Your task to perform on an android device: empty trash in the gmail app Image 0: 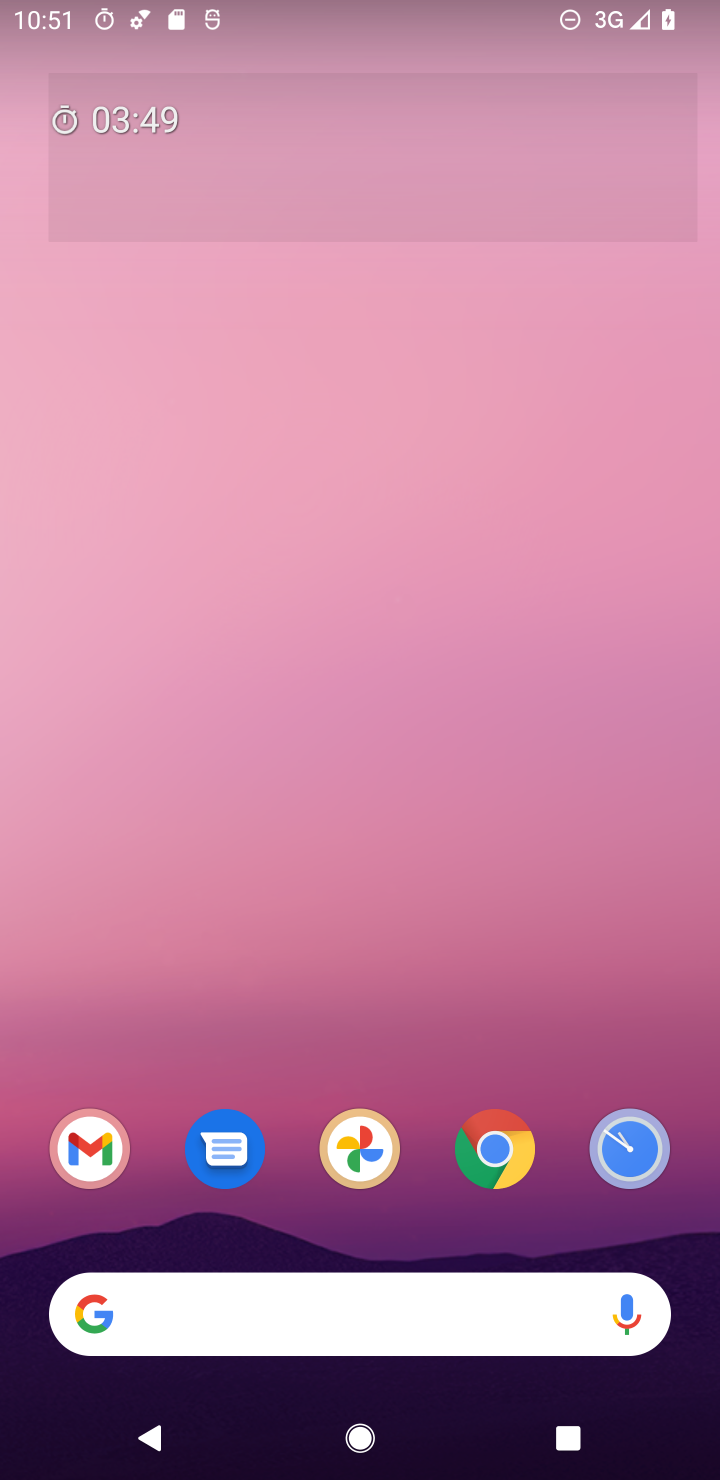
Step 0: drag from (435, 978) to (505, 187)
Your task to perform on an android device: empty trash in the gmail app Image 1: 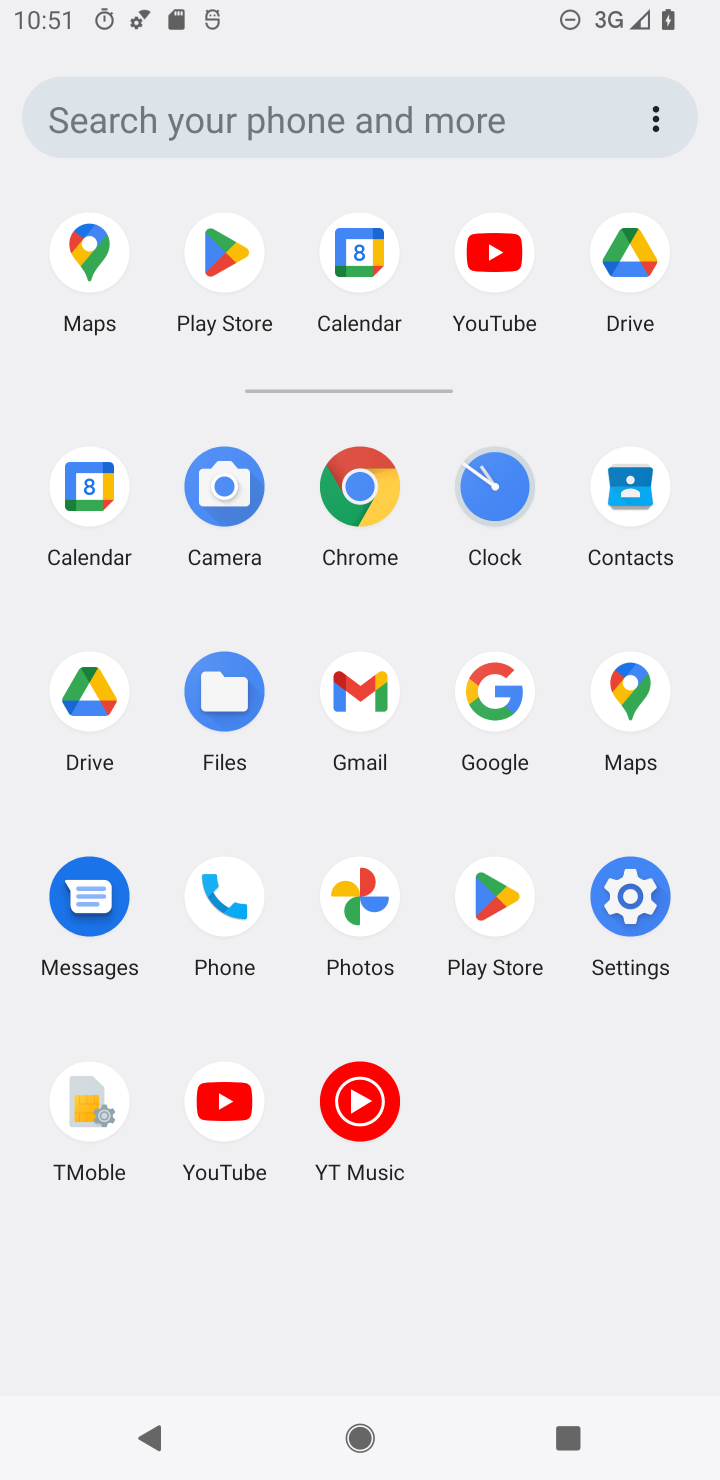
Step 1: click (362, 693)
Your task to perform on an android device: empty trash in the gmail app Image 2: 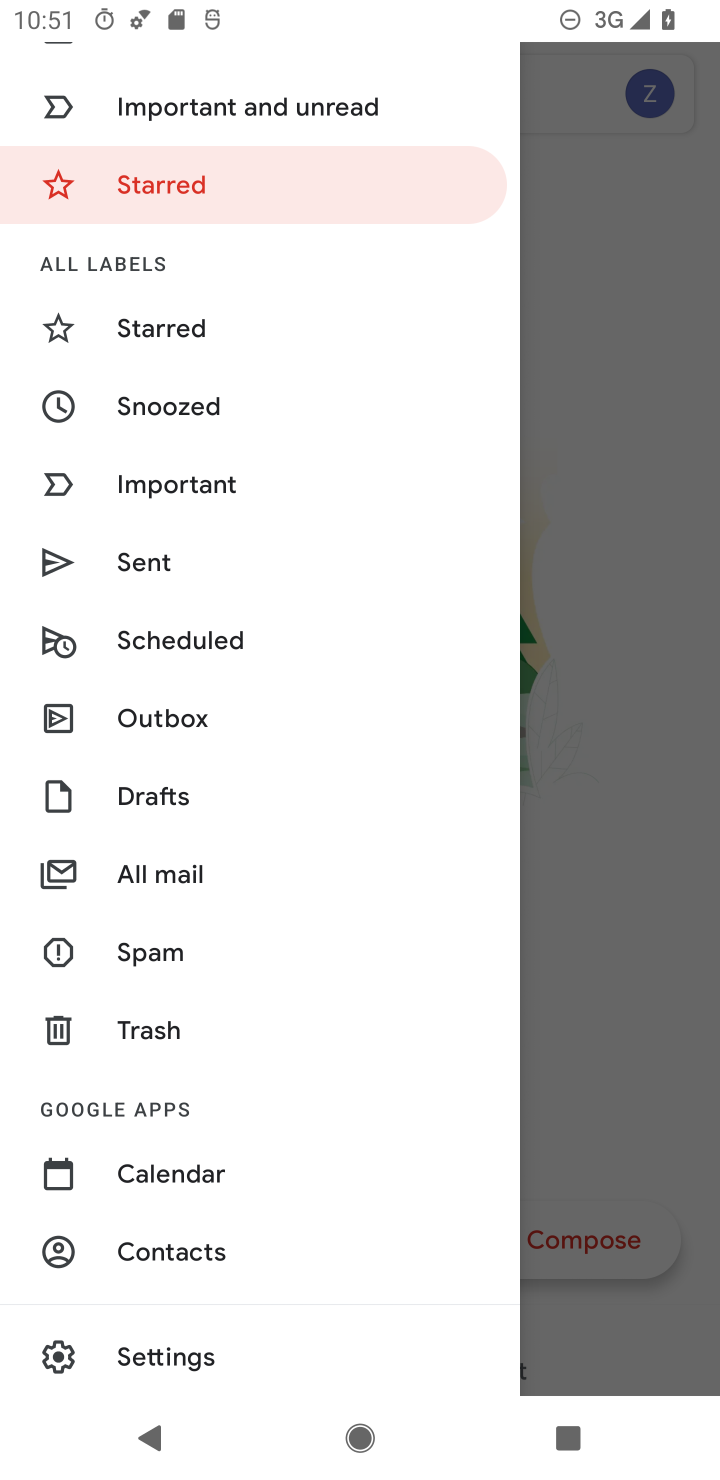
Step 2: click (166, 1016)
Your task to perform on an android device: empty trash in the gmail app Image 3: 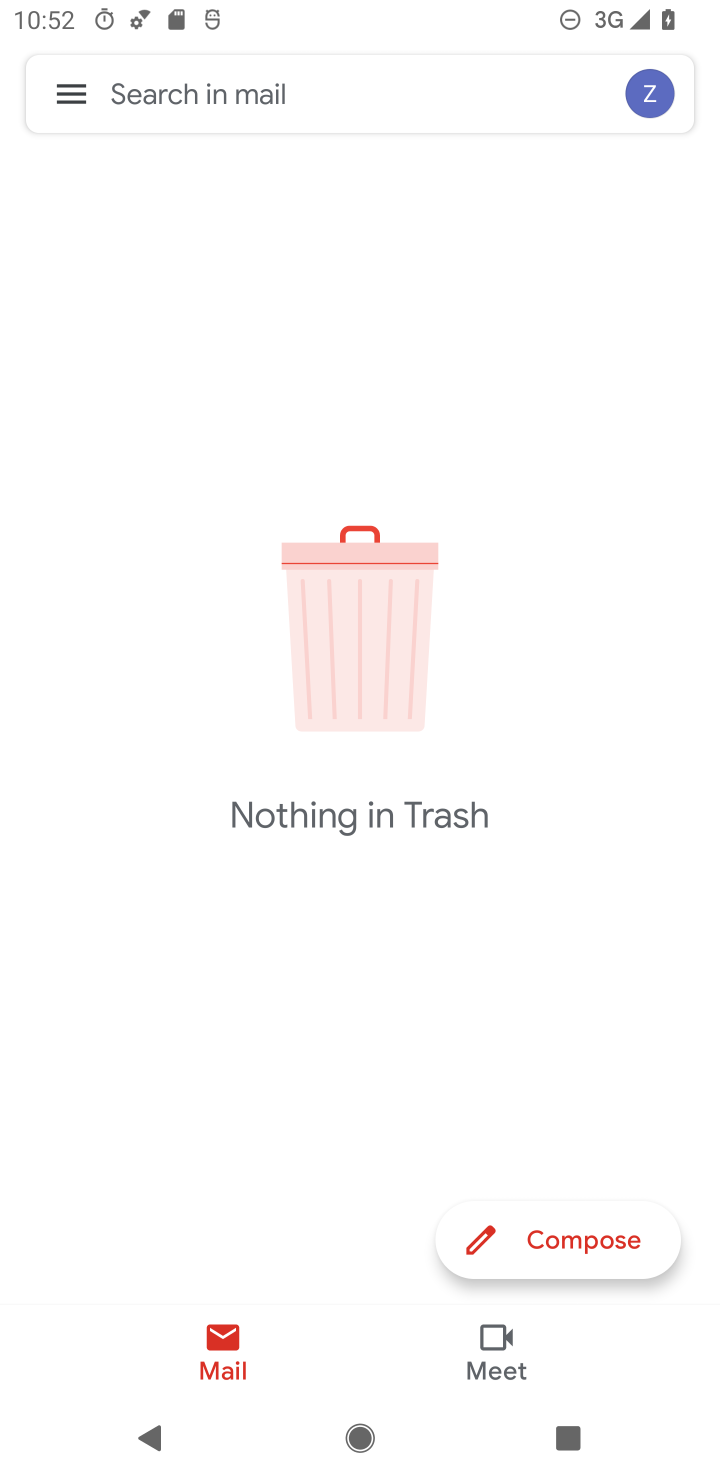
Step 3: task complete